Your task to perform on an android device: Go to network settings Image 0: 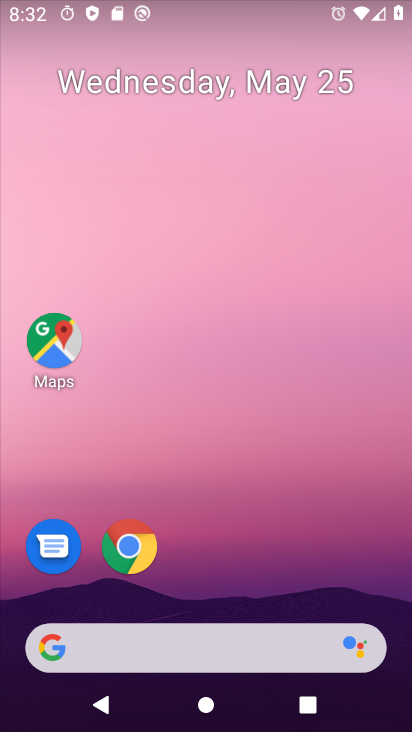
Step 0: drag from (210, 593) to (205, 10)
Your task to perform on an android device: Go to network settings Image 1: 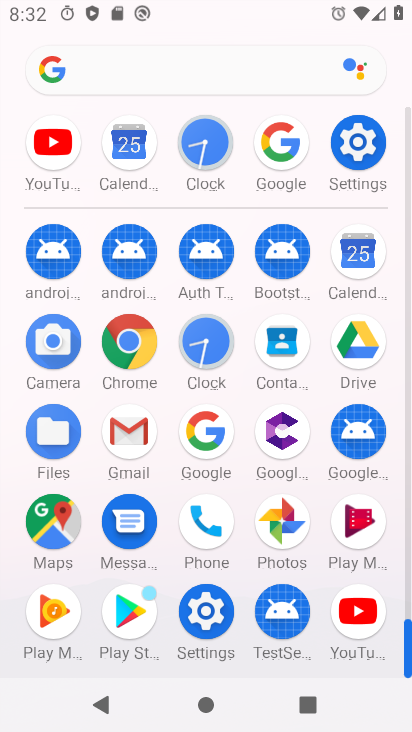
Step 1: click (351, 181)
Your task to perform on an android device: Go to network settings Image 2: 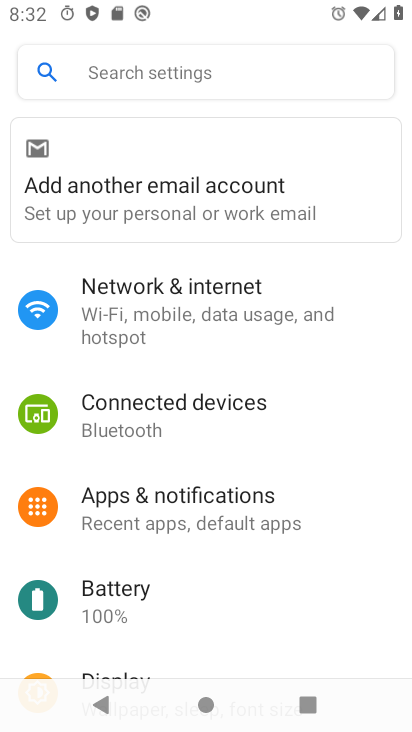
Step 2: click (143, 336)
Your task to perform on an android device: Go to network settings Image 3: 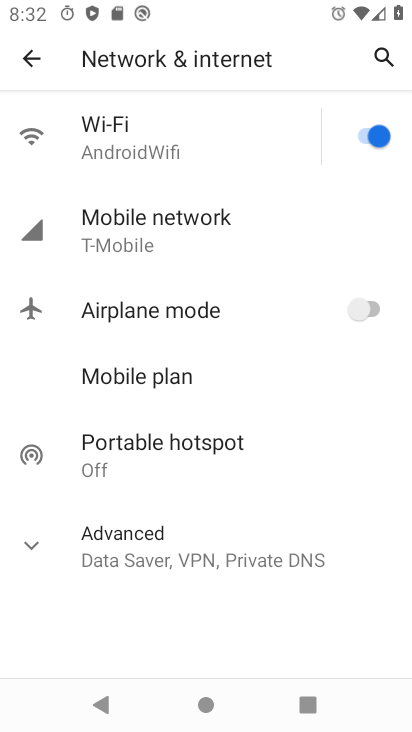
Step 3: task complete